Your task to perform on an android device: Open the Play Movies app and select the watchlist tab. Image 0: 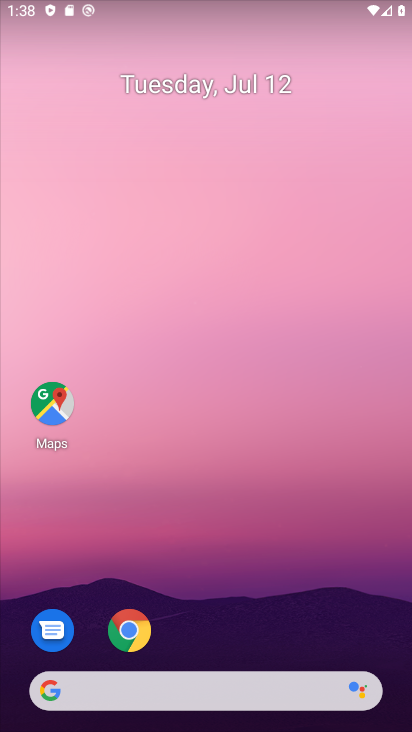
Step 0: drag from (401, 657) to (385, 58)
Your task to perform on an android device: Open the Play Movies app and select the watchlist tab. Image 1: 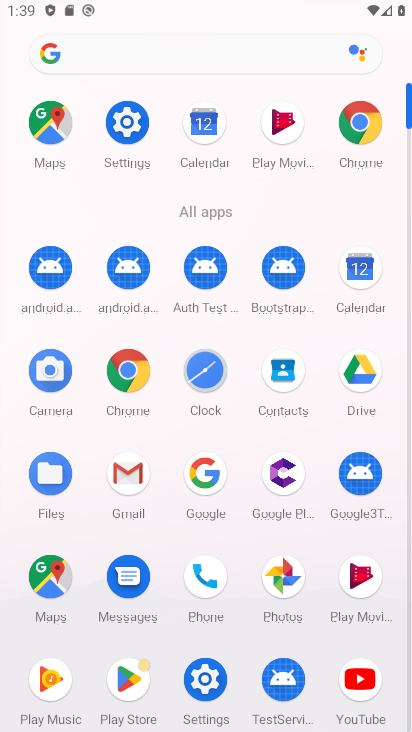
Step 1: click (366, 584)
Your task to perform on an android device: Open the Play Movies app and select the watchlist tab. Image 2: 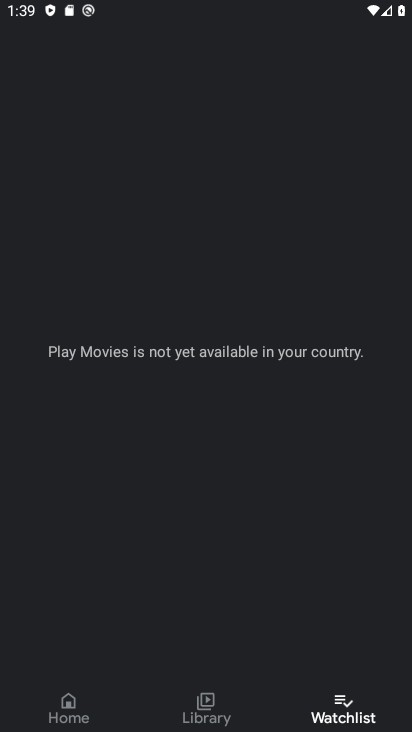
Step 2: click (342, 707)
Your task to perform on an android device: Open the Play Movies app and select the watchlist tab. Image 3: 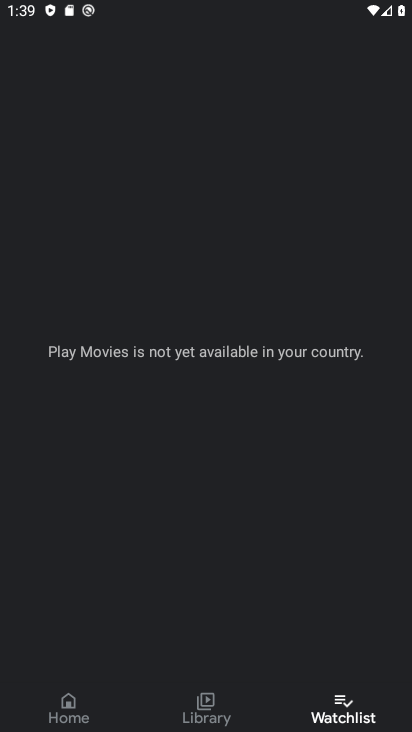
Step 3: task complete